Your task to perform on an android device: Go to settings Image 0: 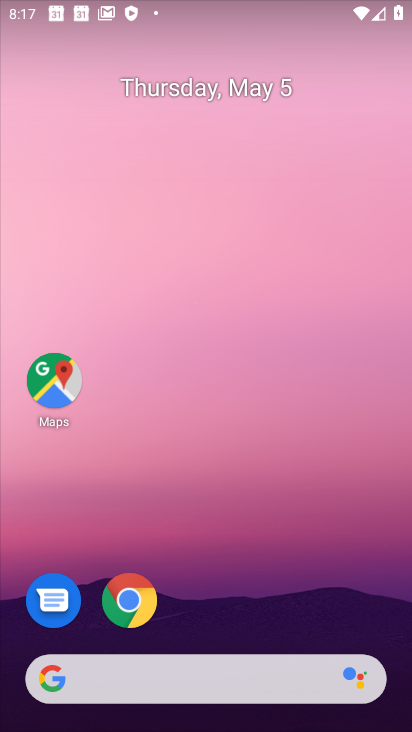
Step 0: drag from (395, 640) to (315, 47)
Your task to perform on an android device: Go to settings Image 1: 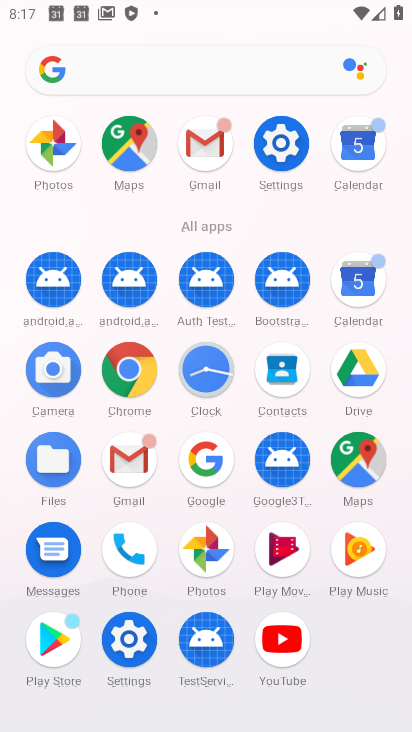
Step 1: click (129, 638)
Your task to perform on an android device: Go to settings Image 2: 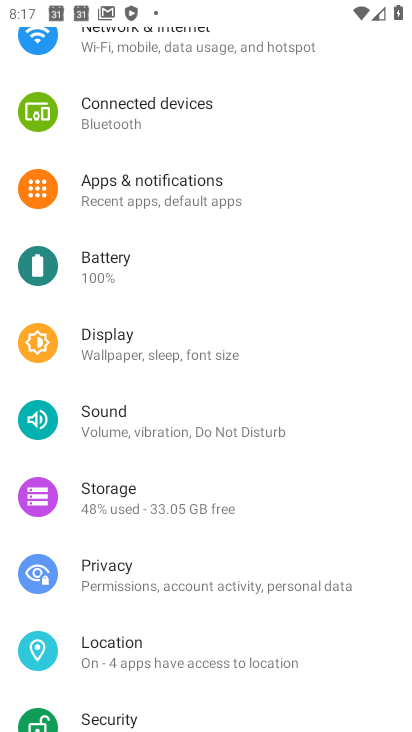
Step 2: task complete